Your task to perform on an android device: delete location history Image 0: 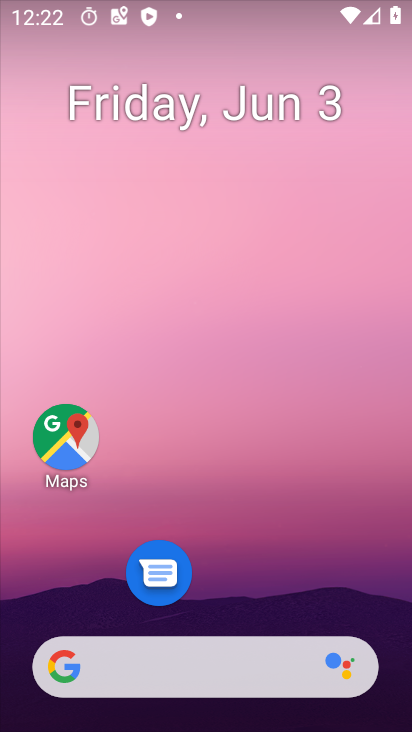
Step 0: drag from (292, 622) to (341, 0)
Your task to perform on an android device: delete location history Image 1: 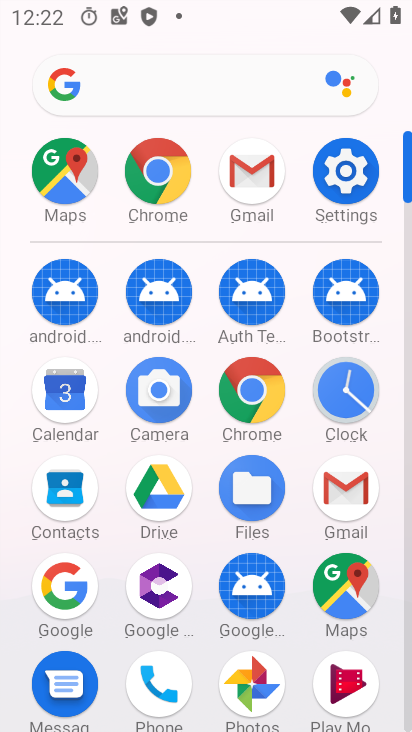
Step 1: click (344, 596)
Your task to perform on an android device: delete location history Image 2: 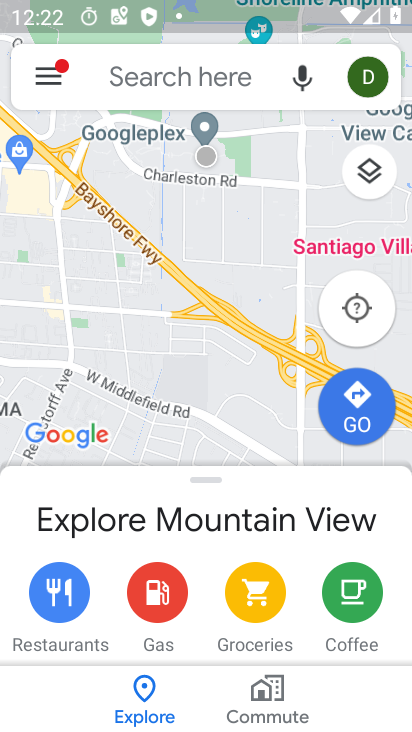
Step 2: click (36, 82)
Your task to perform on an android device: delete location history Image 3: 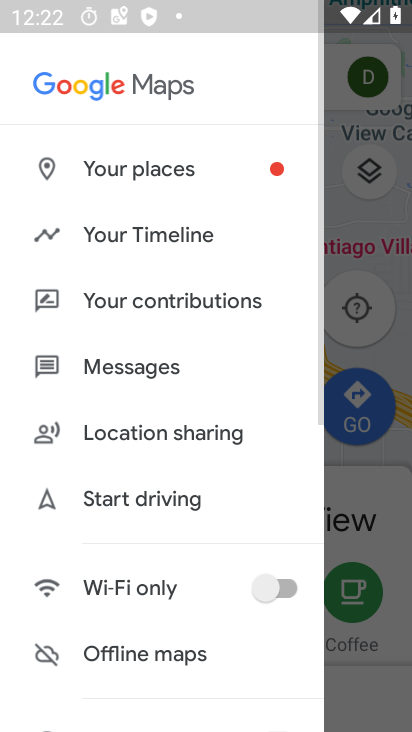
Step 3: click (167, 235)
Your task to perform on an android device: delete location history Image 4: 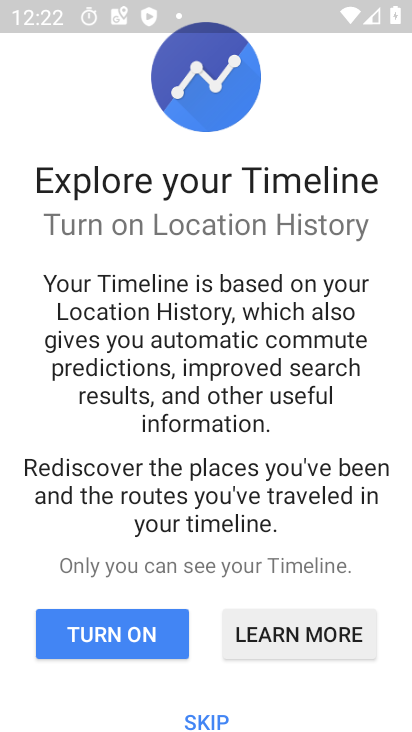
Step 4: click (209, 724)
Your task to perform on an android device: delete location history Image 5: 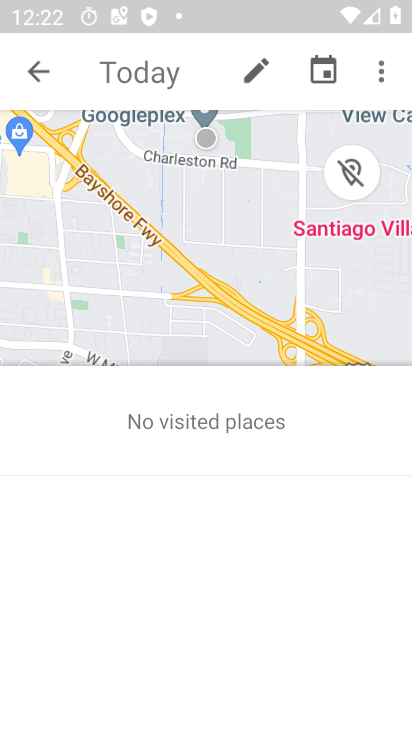
Step 5: click (382, 63)
Your task to perform on an android device: delete location history Image 6: 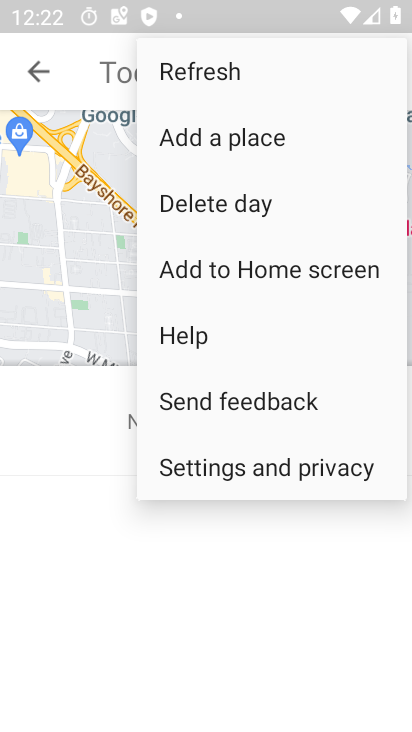
Step 6: click (257, 475)
Your task to perform on an android device: delete location history Image 7: 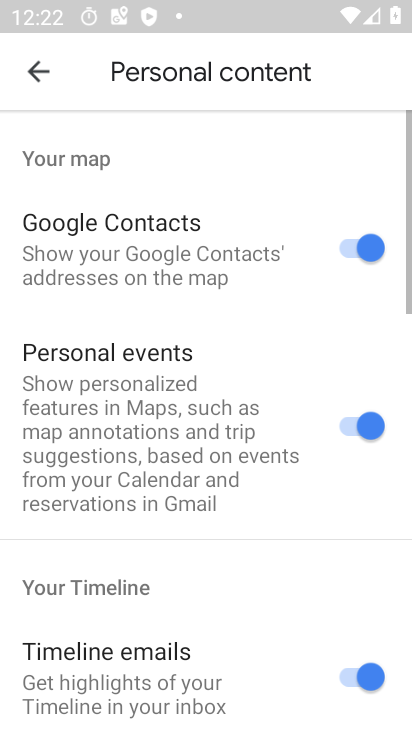
Step 7: drag from (231, 463) to (250, 10)
Your task to perform on an android device: delete location history Image 8: 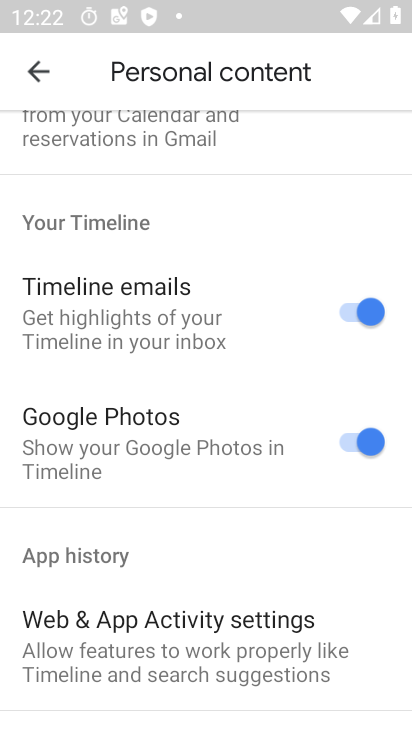
Step 8: drag from (187, 556) to (222, 129)
Your task to perform on an android device: delete location history Image 9: 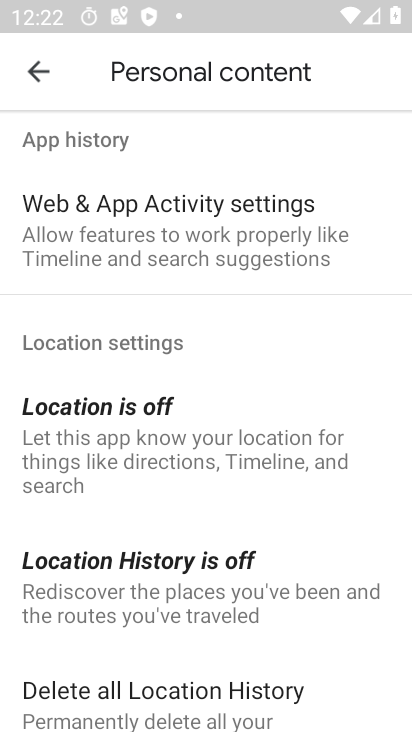
Step 9: click (254, 686)
Your task to perform on an android device: delete location history Image 10: 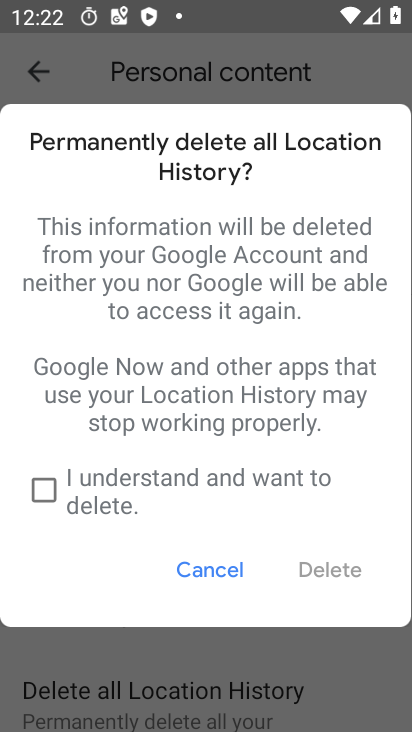
Step 10: click (45, 502)
Your task to perform on an android device: delete location history Image 11: 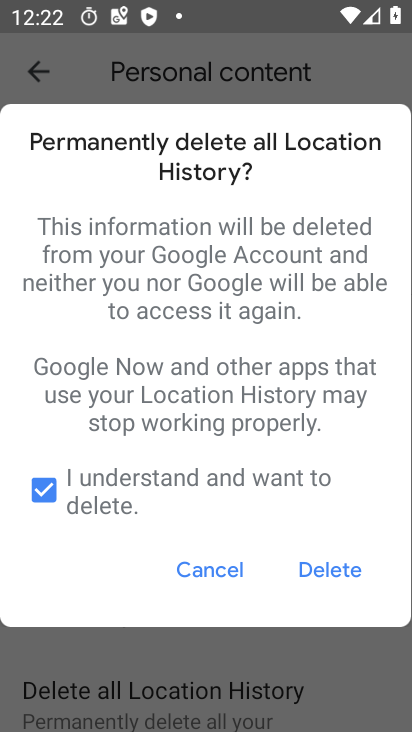
Step 11: click (320, 578)
Your task to perform on an android device: delete location history Image 12: 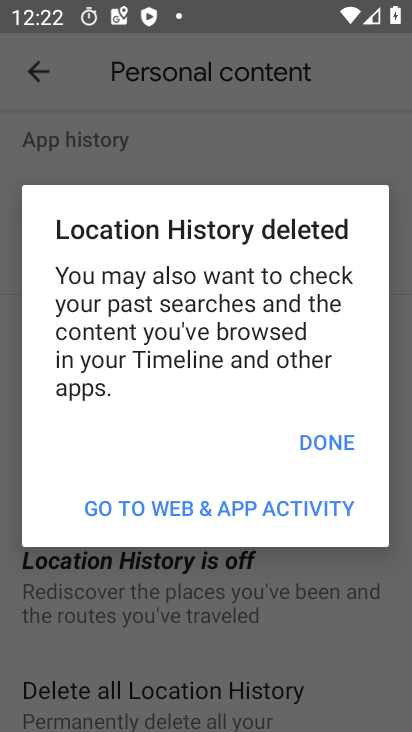
Step 12: task complete